Your task to perform on an android device: Open eBay Image 0: 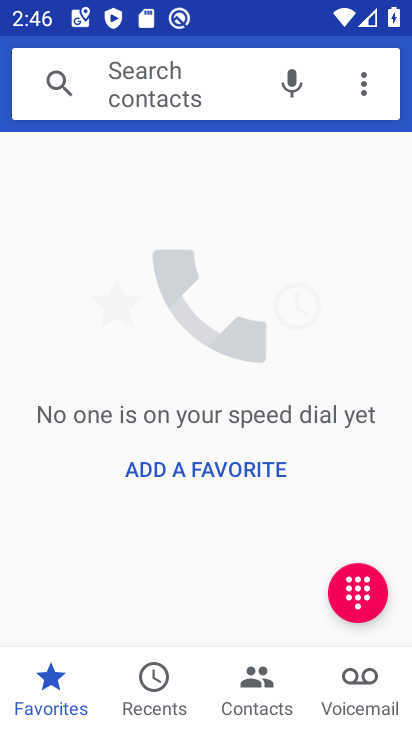
Step 0: press home button
Your task to perform on an android device: Open eBay Image 1: 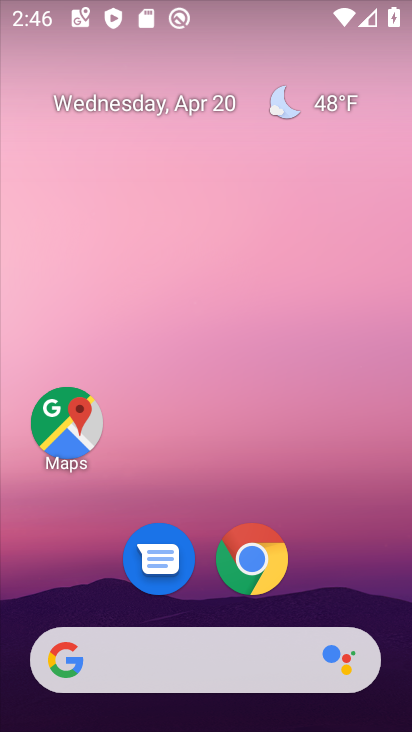
Step 1: drag from (234, 702) to (372, 120)
Your task to perform on an android device: Open eBay Image 2: 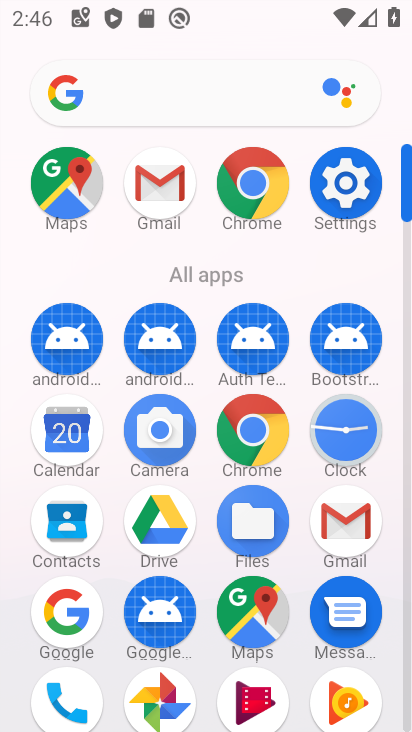
Step 2: click (259, 188)
Your task to perform on an android device: Open eBay Image 3: 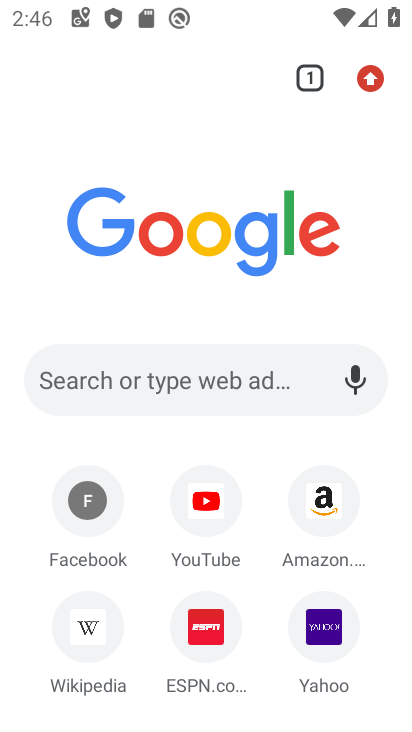
Step 3: click (152, 371)
Your task to perform on an android device: Open eBay Image 4: 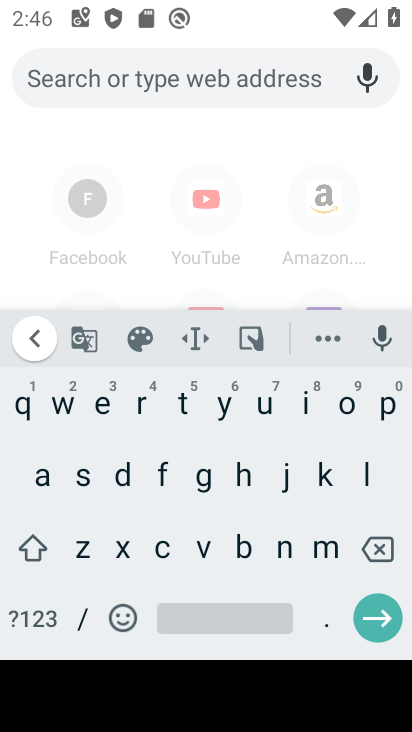
Step 4: click (100, 419)
Your task to perform on an android device: Open eBay Image 5: 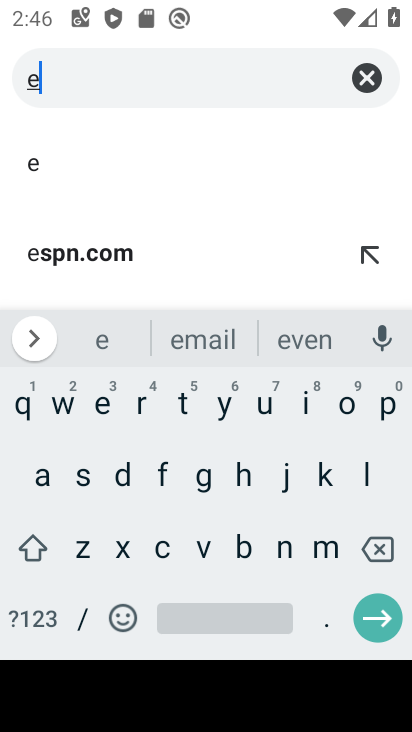
Step 5: click (240, 550)
Your task to perform on an android device: Open eBay Image 6: 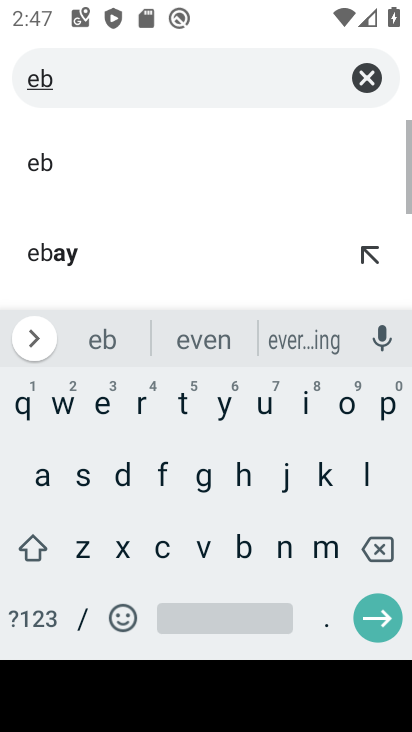
Step 6: click (124, 261)
Your task to perform on an android device: Open eBay Image 7: 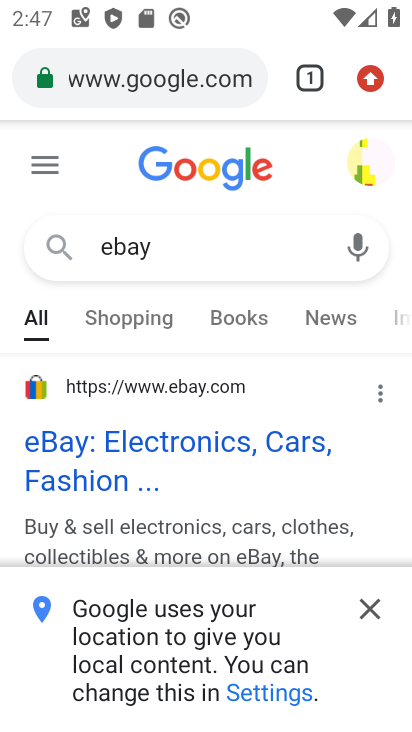
Step 7: click (85, 431)
Your task to perform on an android device: Open eBay Image 8: 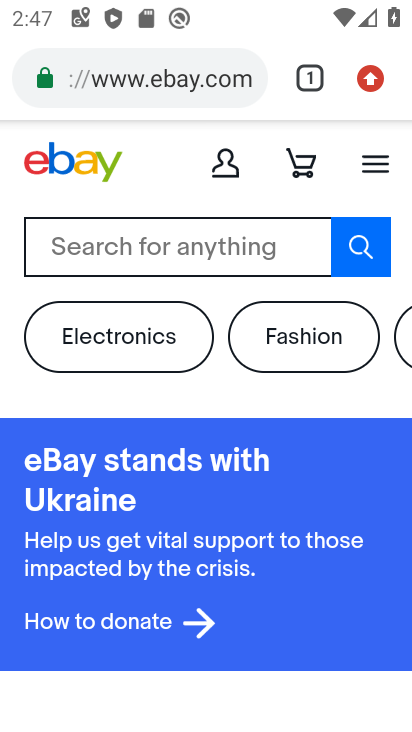
Step 8: task complete